Your task to perform on an android device: Go to notification settings Image 0: 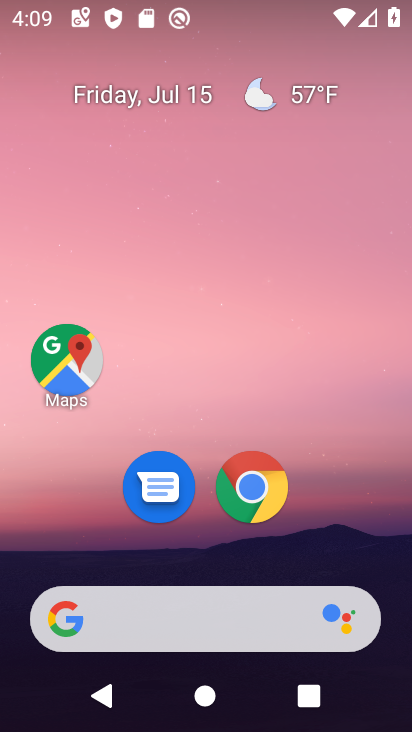
Step 0: drag from (189, 554) to (230, 181)
Your task to perform on an android device: Go to notification settings Image 1: 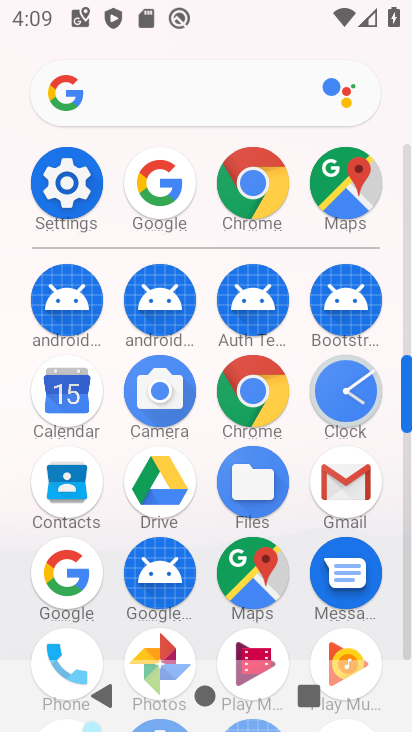
Step 1: click (72, 194)
Your task to perform on an android device: Go to notification settings Image 2: 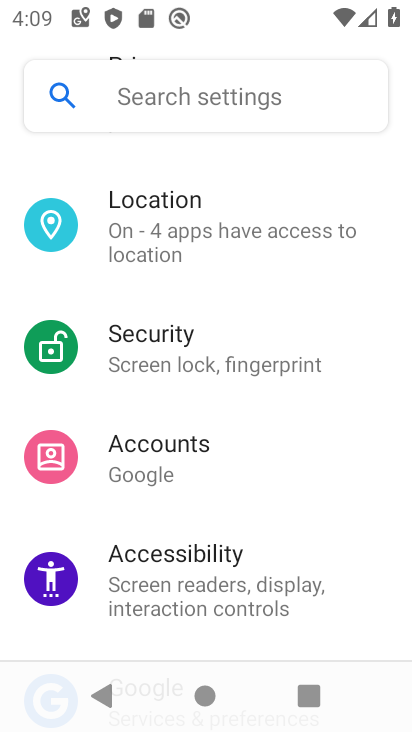
Step 2: drag from (194, 312) to (174, 584)
Your task to perform on an android device: Go to notification settings Image 3: 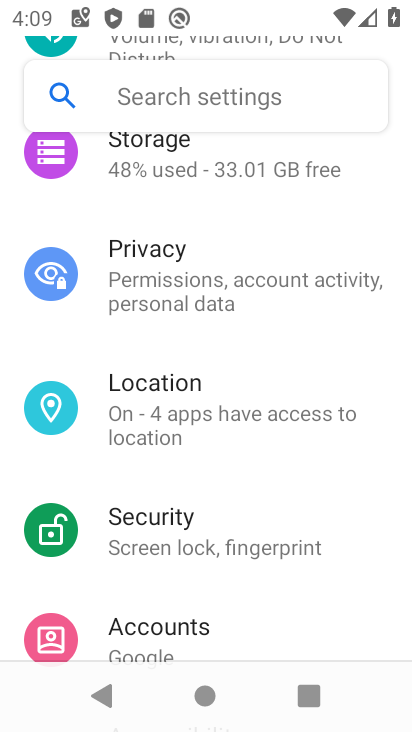
Step 3: drag from (190, 318) to (180, 513)
Your task to perform on an android device: Go to notification settings Image 4: 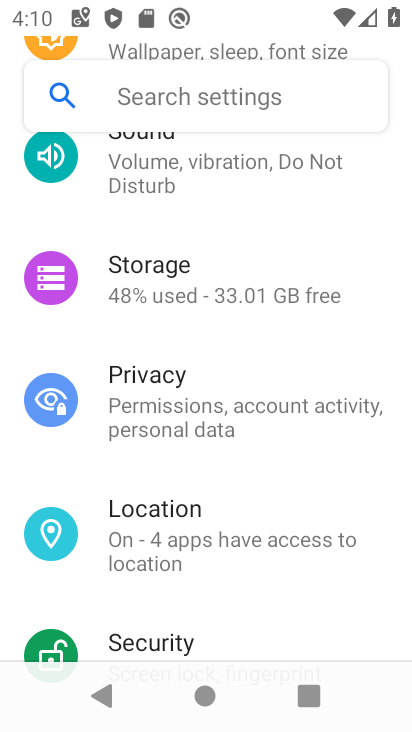
Step 4: drag from (168, 277) to (158, 584)
Your task to perform on an android device: Go to notification settings Image 5: 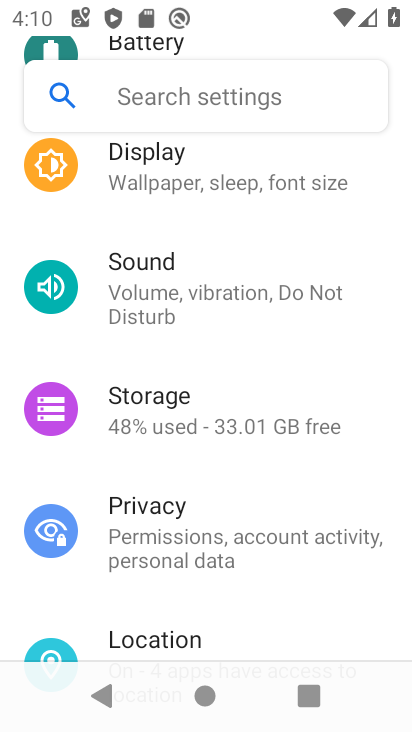
Step 5: drag from (207, 348) to (207, 595)
Your task to perform on an android device: Go to notification settings Image 6: 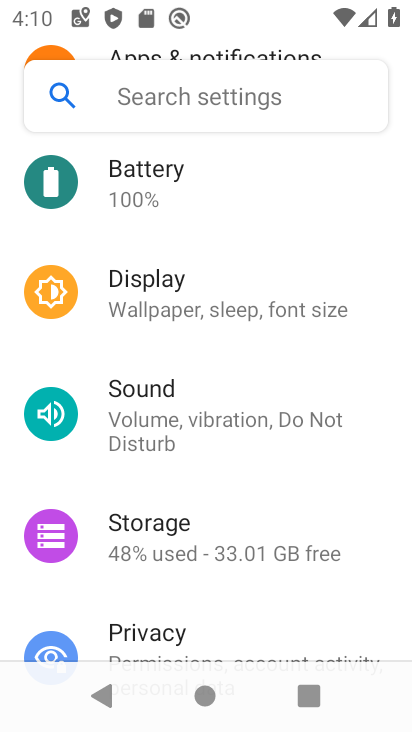
Step 6: drag from (198, 441) to (192, 618)
Your task to perform on an android device: Go to notification settings Image 7: 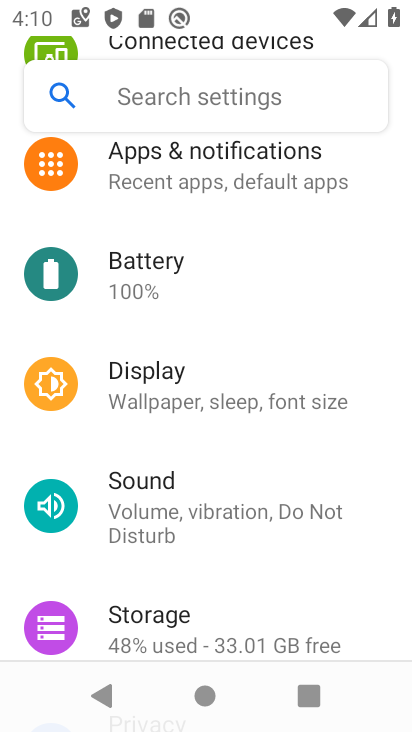
Step 7: click (221, 178)
Your task to perform on an android device: Go to notification settings Image 8: 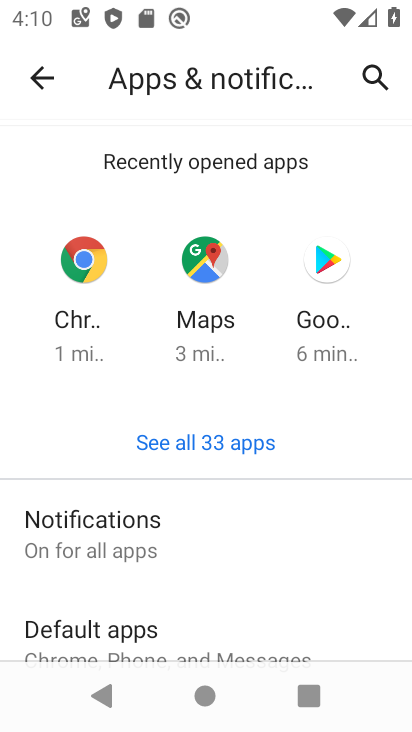
Step 8: drag from (154, 562) to (161, 331)
Your task to perform on an android device: Go to notification settings Image 9: 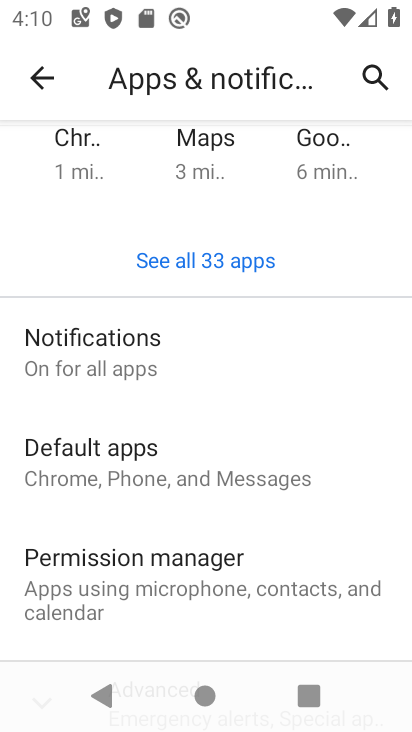
Step 9: click (155, 369)
Your task to perform on an android device: Go to notification settings Image 10: 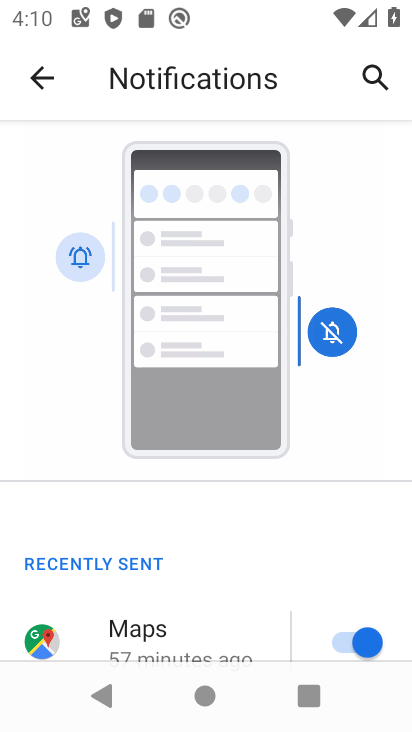
Step 10: task complete